Your task to perform on an android device: What's on my calendar tomorrow? Image 0: 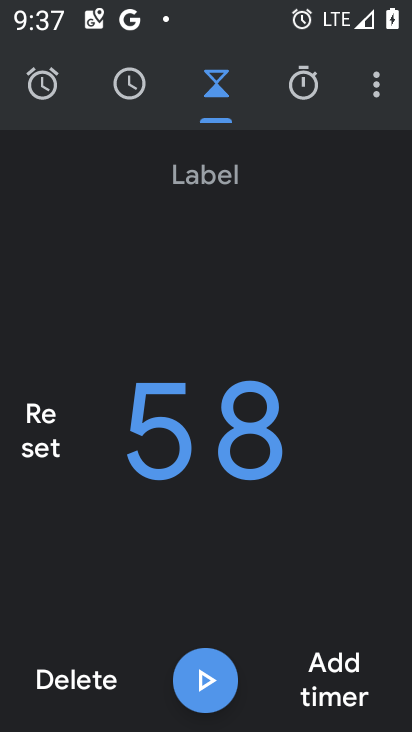
Step 0: press home button
Your task to perform on an android device: What's on my calendar tomorrow? Image 1: 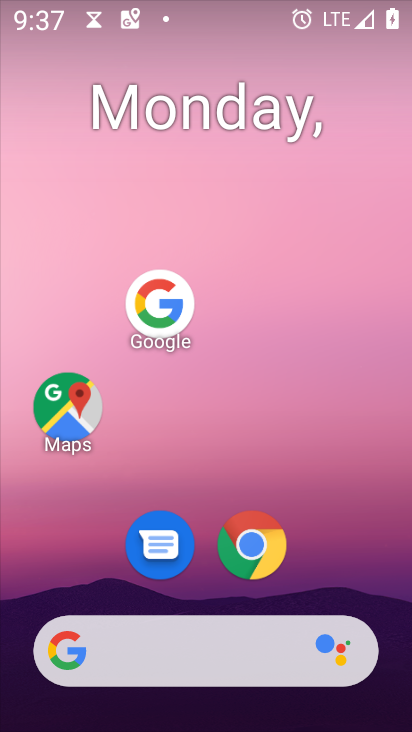
Step 1: drag from (148, 643) to (301, 29)
Your task to perform on an android device: What's on my calendar tomorrow? Image 2: 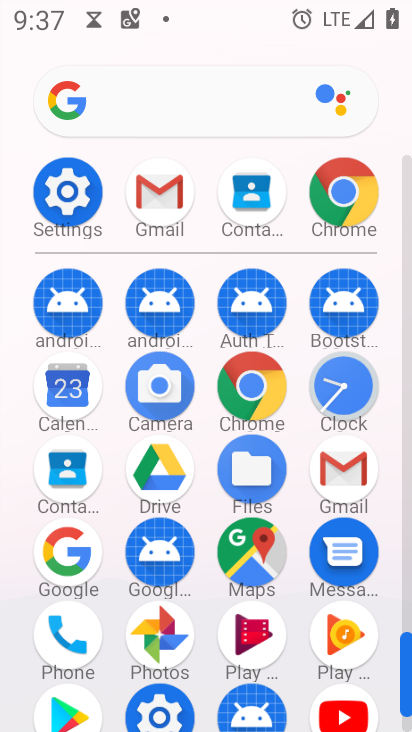
Step 2: click (68, 397)
Your task to perform on an android device: What's on my calendar tomorrow? Image 3: 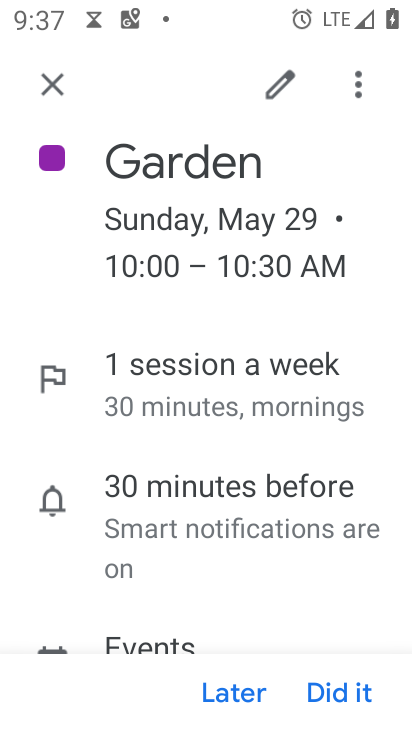
Step 3: click (51, 74)
Your task to perform on an android device: What's on my calendar tomorrow? Image 4: 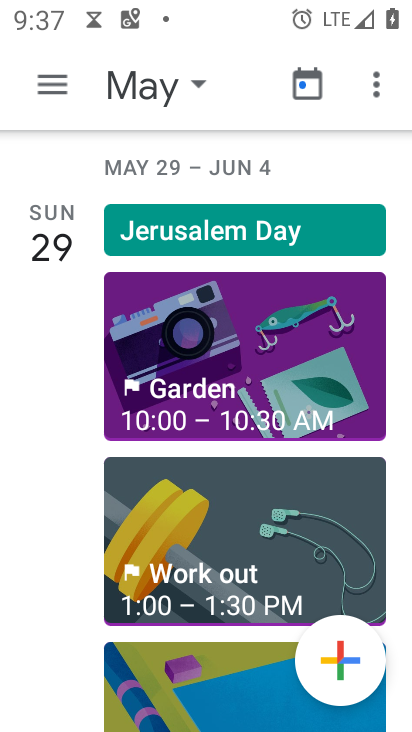
Step 4: click (149, 100)
Your task to perform on an android device: What's on my calendar tomorrow? Image 5: 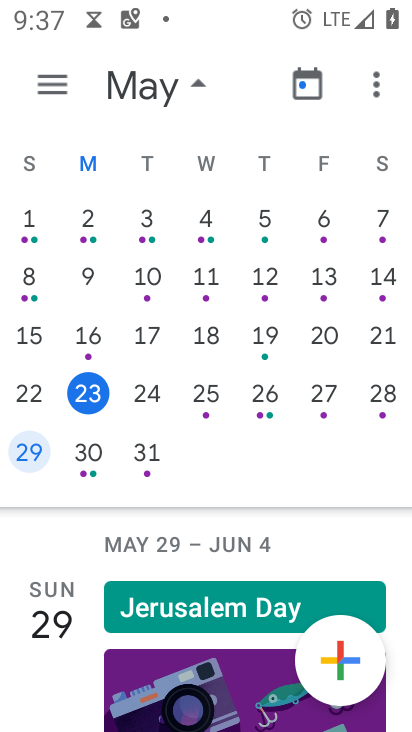
Step 5: click (150, 393)
Your task to perform on an android device: What's on my calendar tomorrow? Image 6: 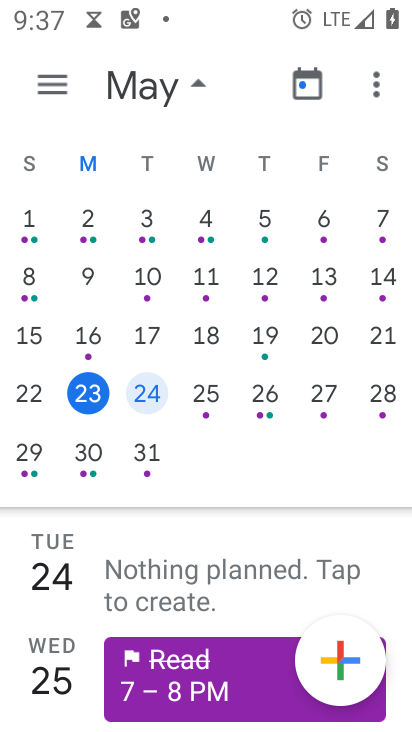
Step 6: click (142, 395)
Your task to perform on an android device: What's on my calendar tomorrow? Image 7: 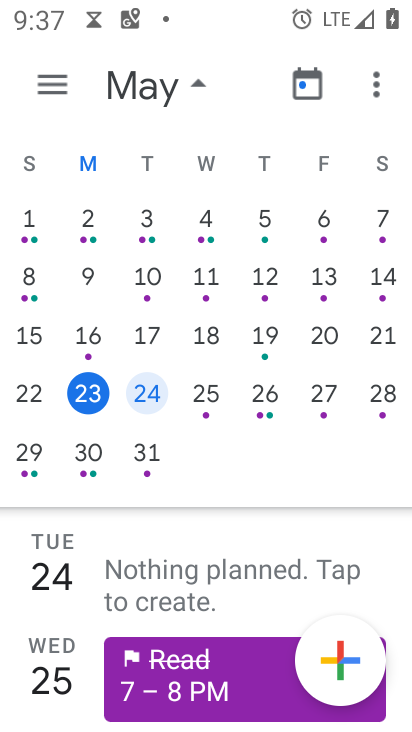
Step 7: click (66, 80)
Your task to perform on an android device: What's on my calendar tomorrow? Image 8: 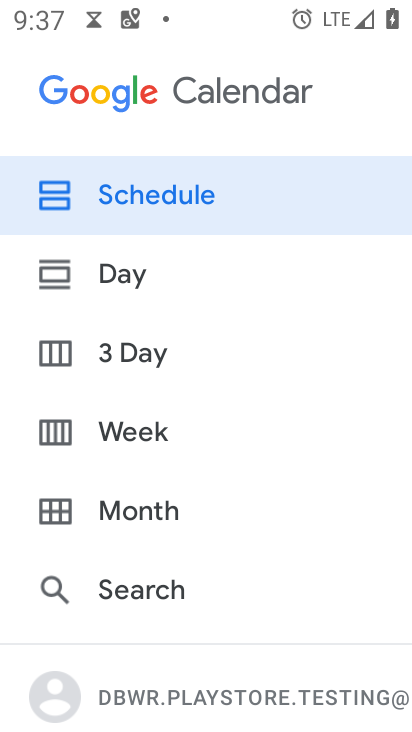
Step 8: click (132, 273)
Your task to perform on an android device: What's on my calendar tomorrow? Image 9: 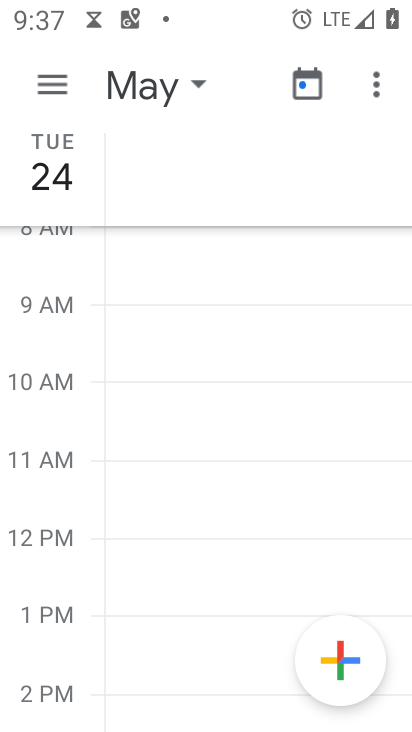
Step 9: click (59, 83)
Your task to perform on an android device: What's on my calendar tomorrow? Image 10: 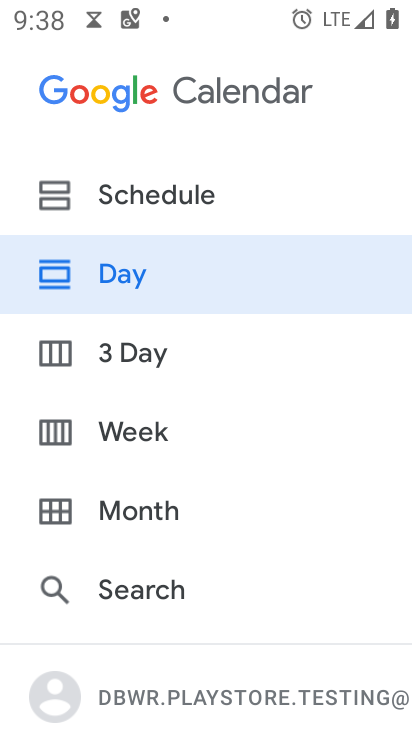
Step 10: click (177, 202)
Your task to perform on an android device: What's on my calendar tomorrow? Image 11: 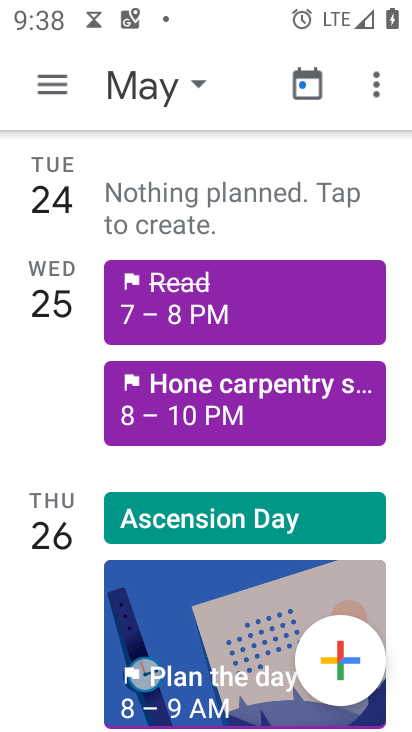
Step 11: task complete